Your task to perform on an android device: turn off location history Image 0: 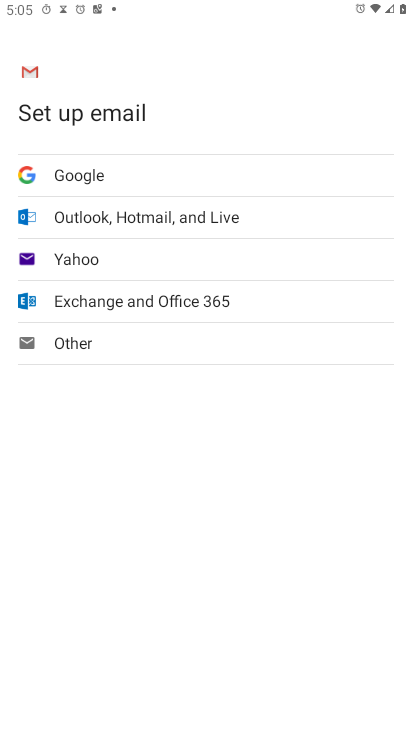
Step 0: press home button
Your task to perform on an android device: turn off location history Image 1: 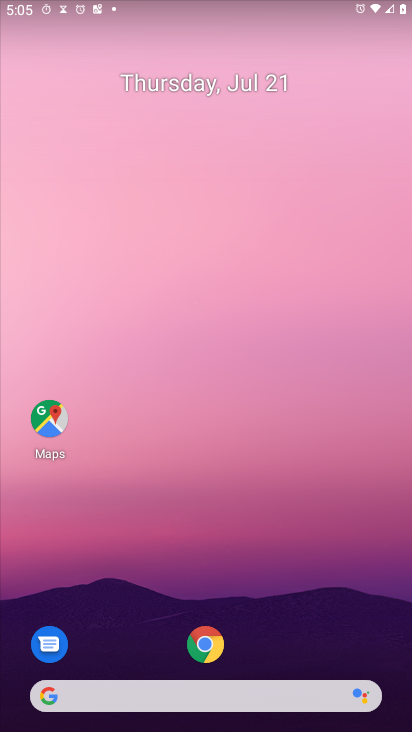
Step 1: drag from (320, 610) to (339, 20)
Your task to perform on an android device: turn off location history Image 2: 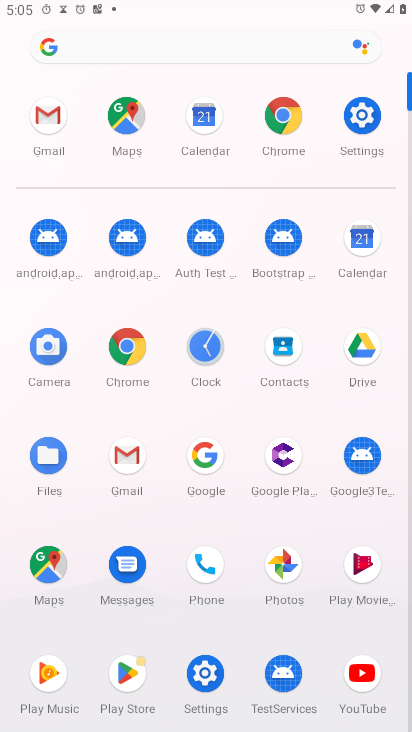
Step 2: click (370, 107)
Your task to perform on an android device: turn off location history Image 3: 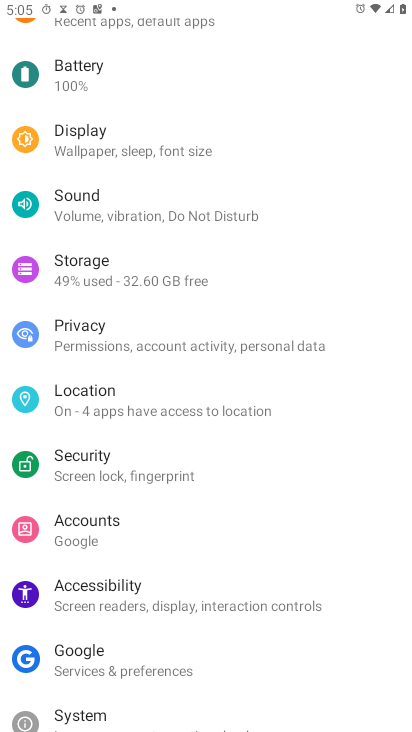
Step 3: click (87, 400)
Your task to perform on an android device: turn off location history Image 4: 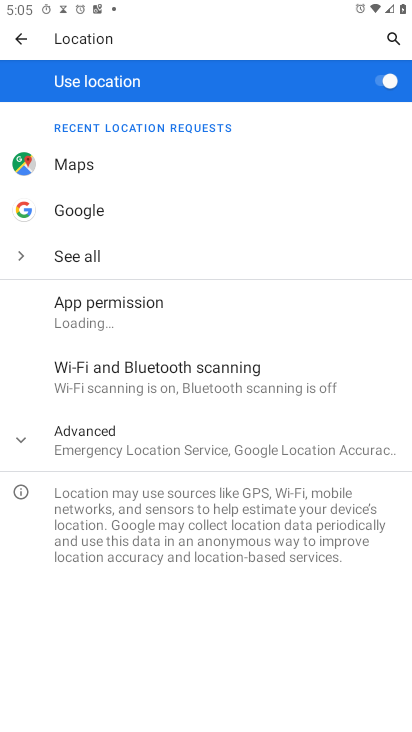
Step 4: click (393, 78)
Your task to perform on an android device: turn off location history Image 5: 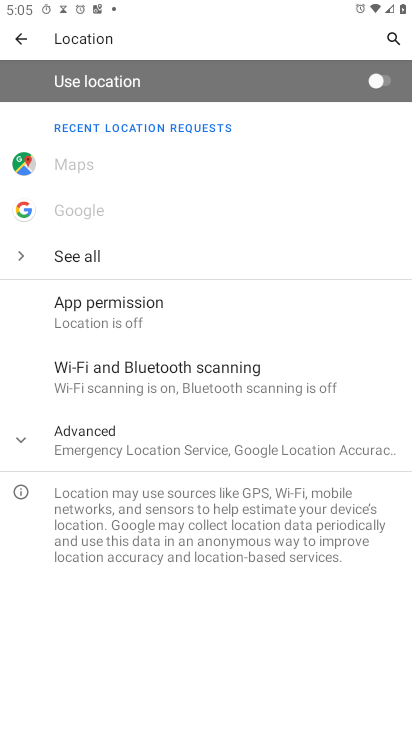
Step 5: task complete